Your task to perform on an android device: Do I have any events today? Image 0: 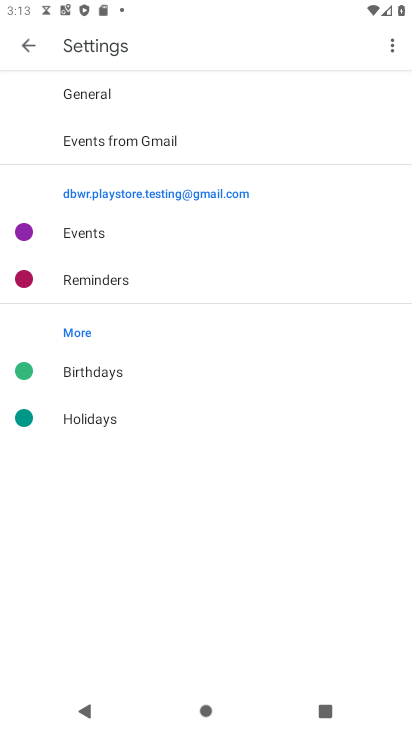
Step 0: press home button
Your task to perform on an android device: Do I have any events today? Image 1: 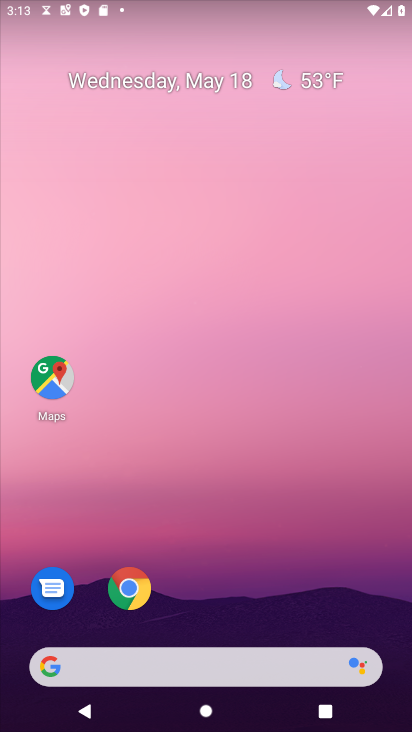
Step 1: drag from (254, 604) to (271, 44)
Your task to perform on an android device: Do I have any events today? Image 2: 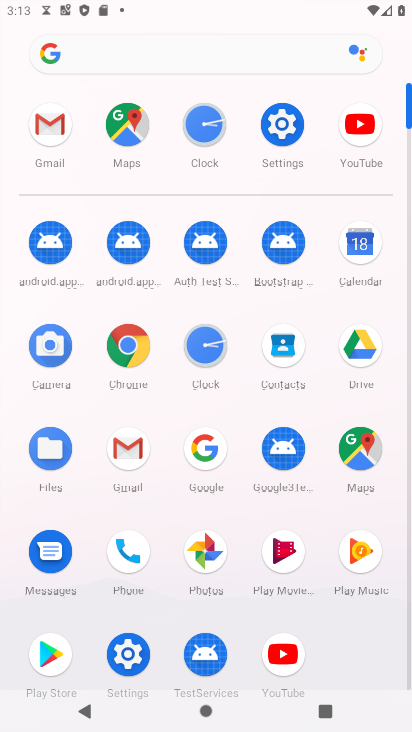
Step 2: click (358, 254)
Your task to perform on an android device: Do I have any events today? Image 3: 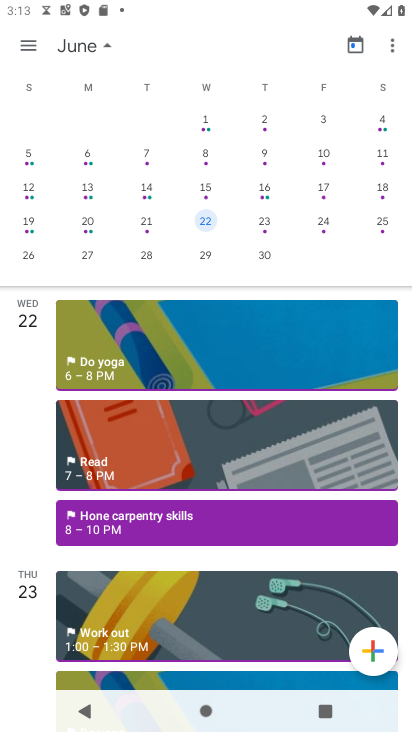
Step 3: drag from (58, 149) to (398, 186)
Your task to perform on an android device: Do I have any events today? Image 4: 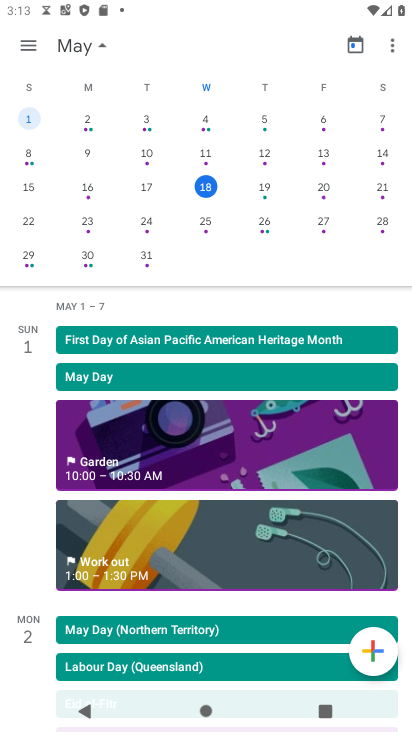
Step 4: click (98, 52)
Your task to perform on an android device: Do I have any events today? Image 5: 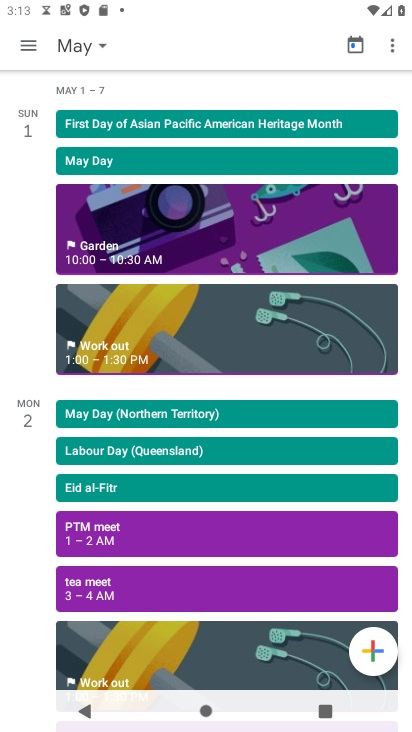
Step 5: task complete